Your task to perform on an android device: visit the assistant section in the google photos Image 0: 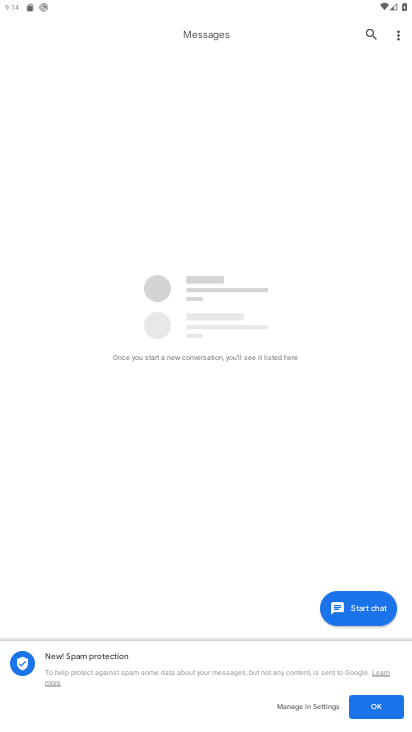
Step 0: press home button
Your task to perform on an android device: visit the assistant section in the google photos Image 1: 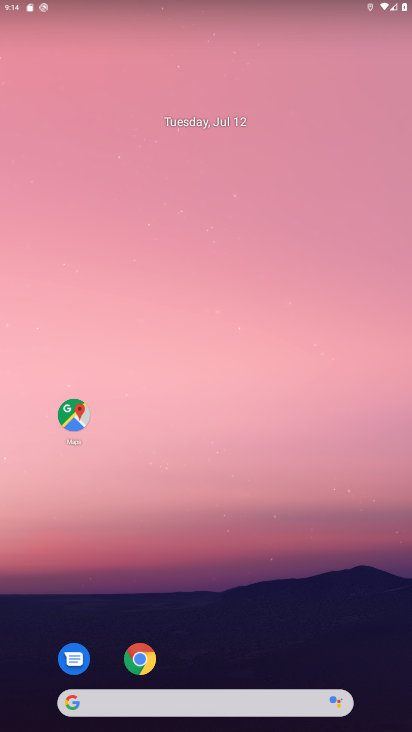
Step 1: drag from (292, 622) to (318, 121)
Your task to perform on an android device: visit the assistant section in the google photos Image 2: 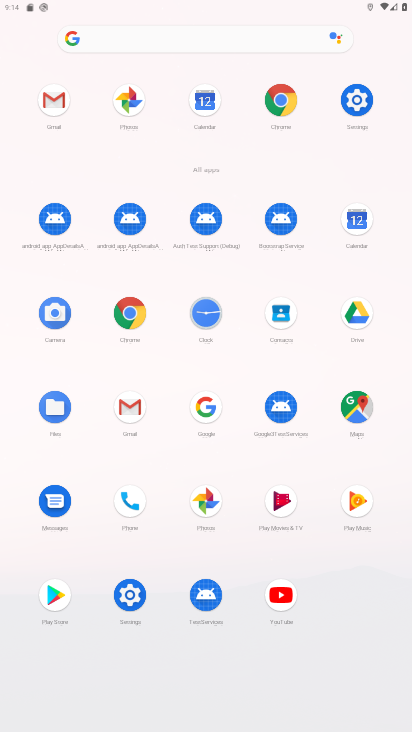
Step 2: click (217, 492)
Your task to perform on an android device: visit the assistant section in the google photos Image 3: 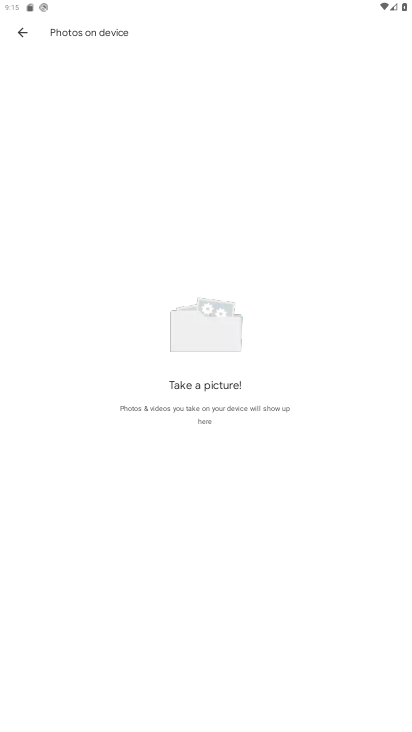
Step 3: press home button
Your task to perform on an android device: visit the assistant section in the google photos Image 4: 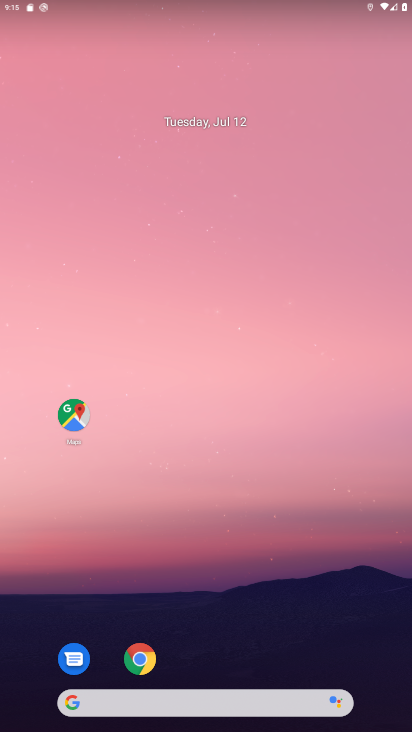
Step 4: drag from (245, 662) to (282, 95)
Your task to perform on an android device: visit the assistant section in the google photos Image 5: 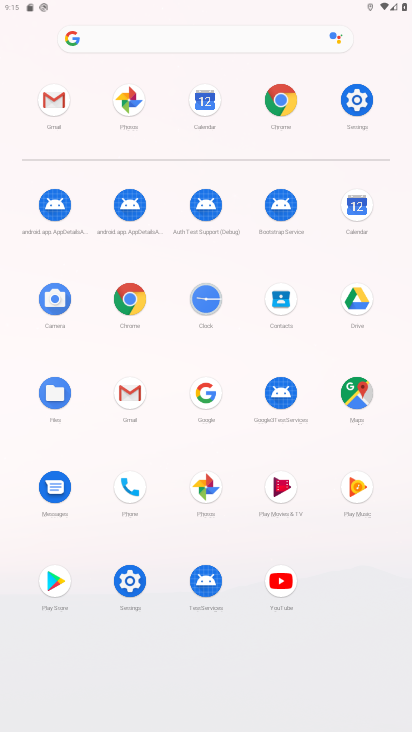
Step 5: click (196, 483)
Your task to perform on an android device: visit the assistant section in the google photos Image 6: 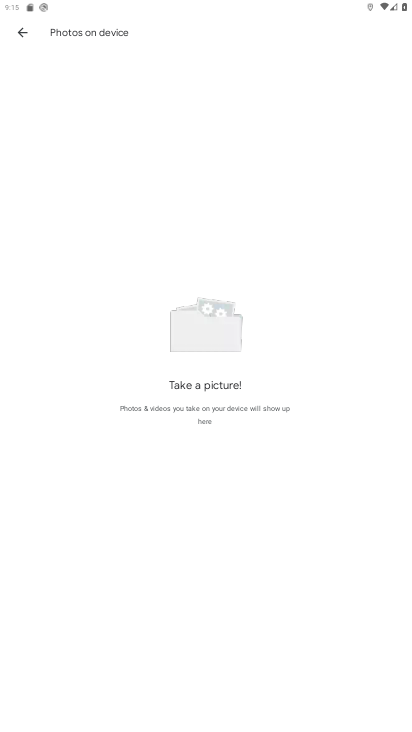
Step 6: click (18, 23)
Your task to perform on an android device: visit the assistant section in the google photos Image 7: 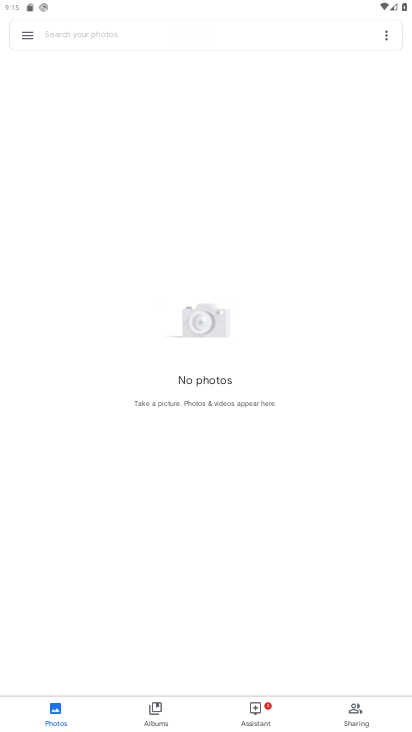
Step 7: click (252, 713)
Your task to perform on an android device: visit the assistant section in the google photos Image 8: 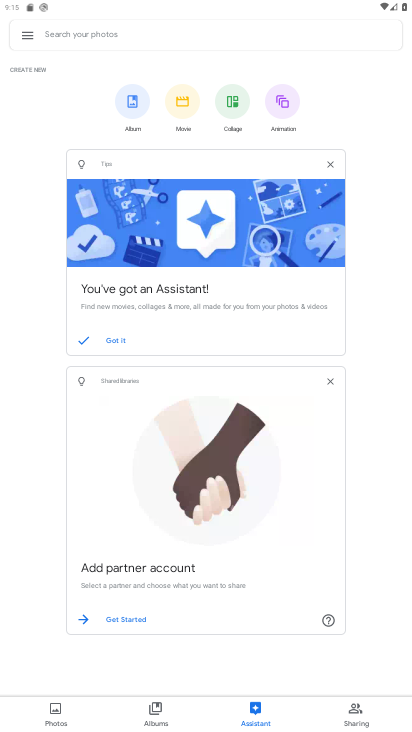
Step 8: task complete